Your task to perform on an android device: Open Android settings Image 0: 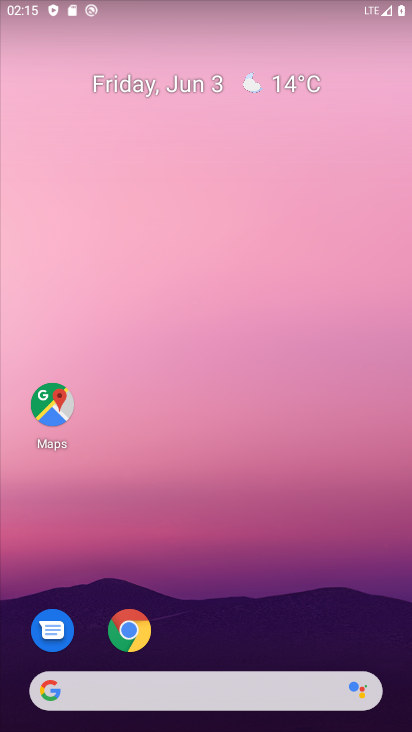
Step 0: drag from (368, 628) to (261, 67)
Your task to perform on an android device: Open Android settings Image 1: 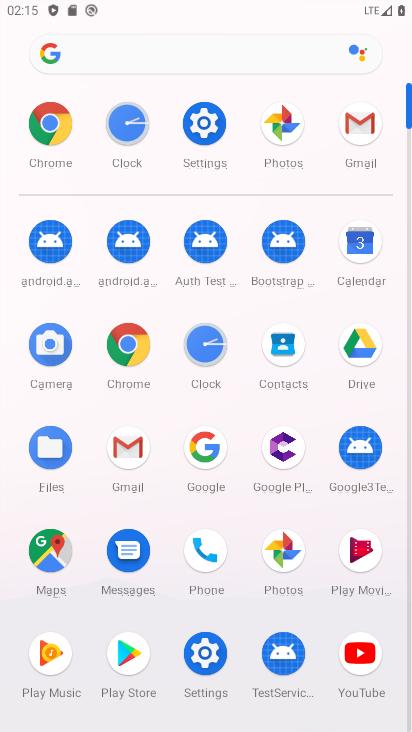
Step 1: click (187, 116)
Your task to perform on an android device: Open Android settings Image 2: 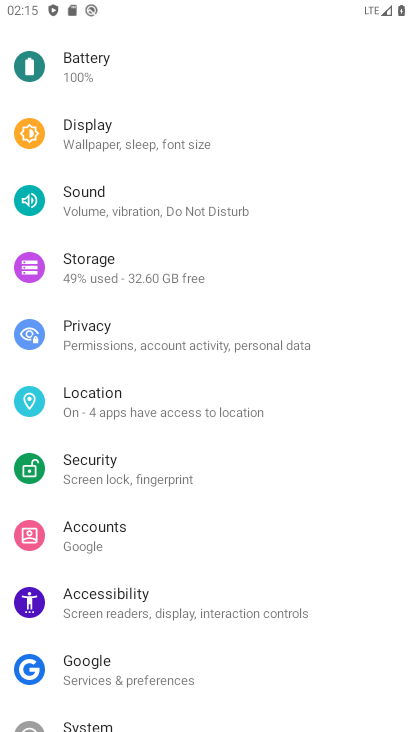
Step 2: task complete